Your task to perform on an android device: Show the shopping cart on ebay.com. Image 0: 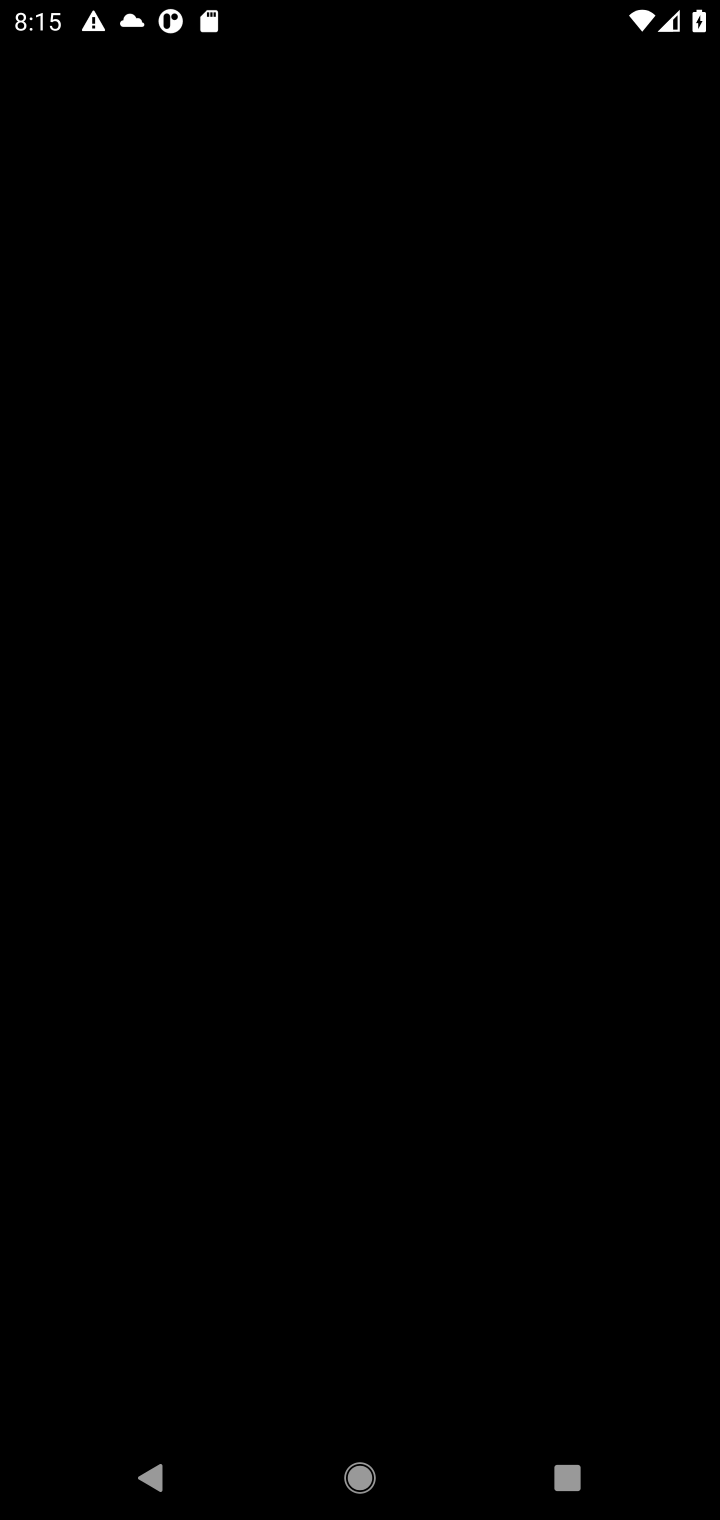
Step 0: press home button
Your task to perform on an android device: Show the shopping cart on ebay.com. Image 1: 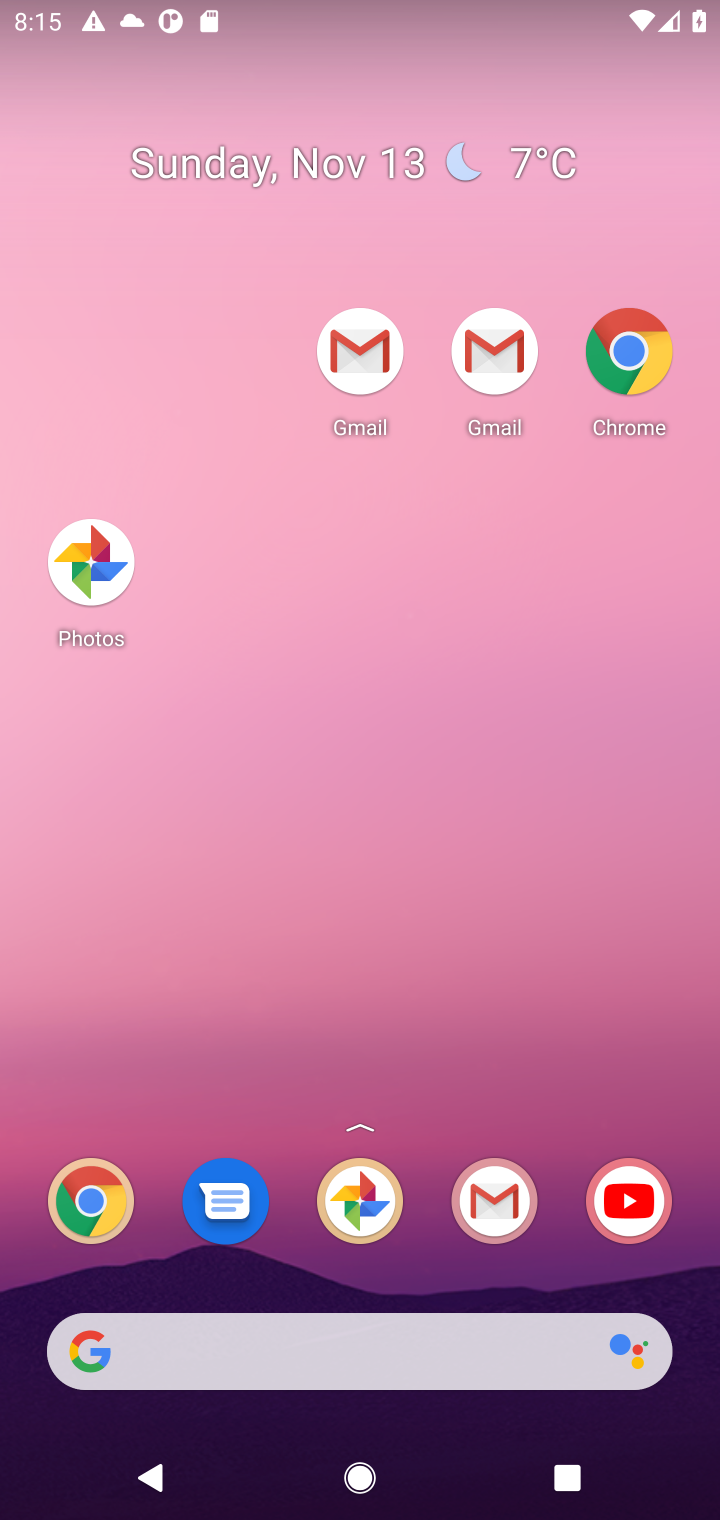
Step 1: drag from (415, 1254) to (664, 687)
Your task to perform on an android device: Show the shopping cart on ebay.com. Image 2: 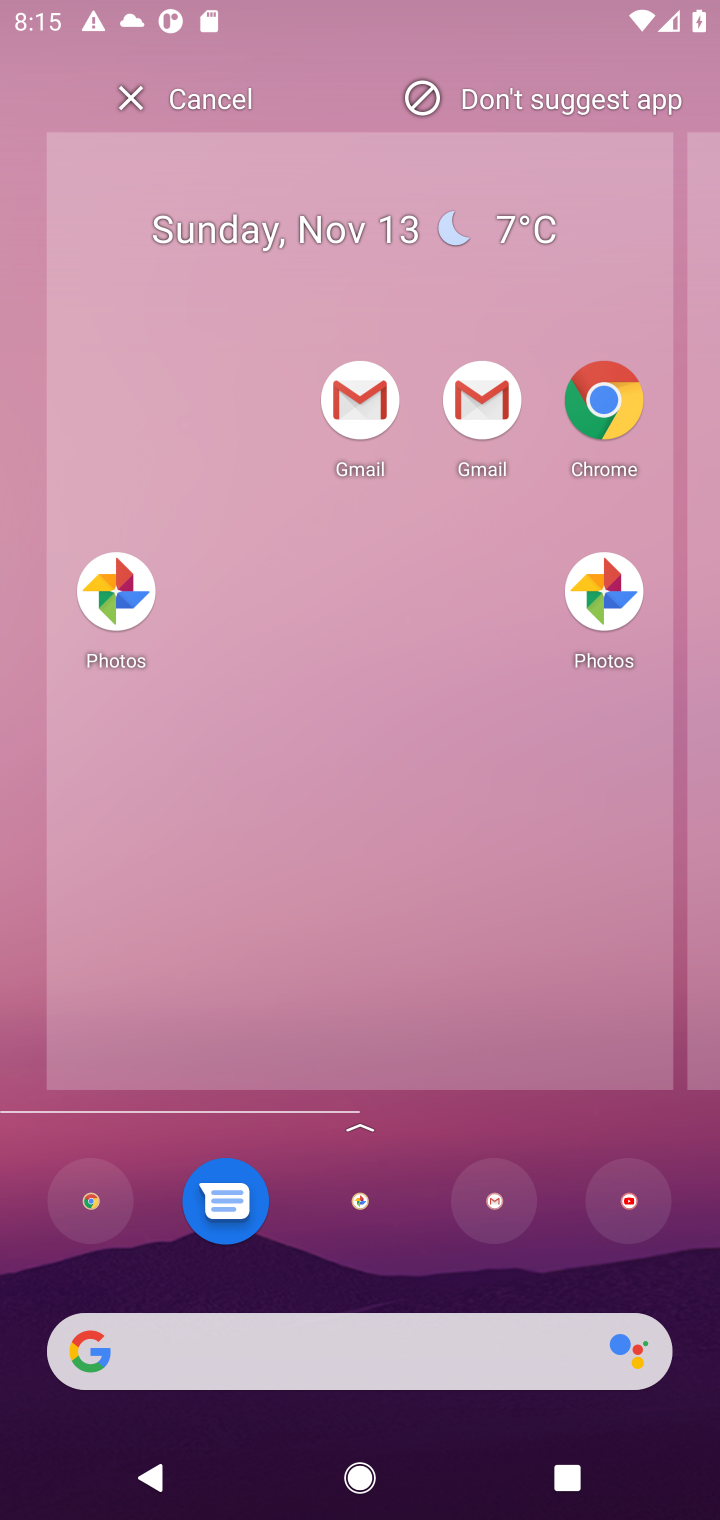
Step 2: click (295, 1297)
Your task to perform on an android device: Show the shopping cart on ebay.com. Image 3: 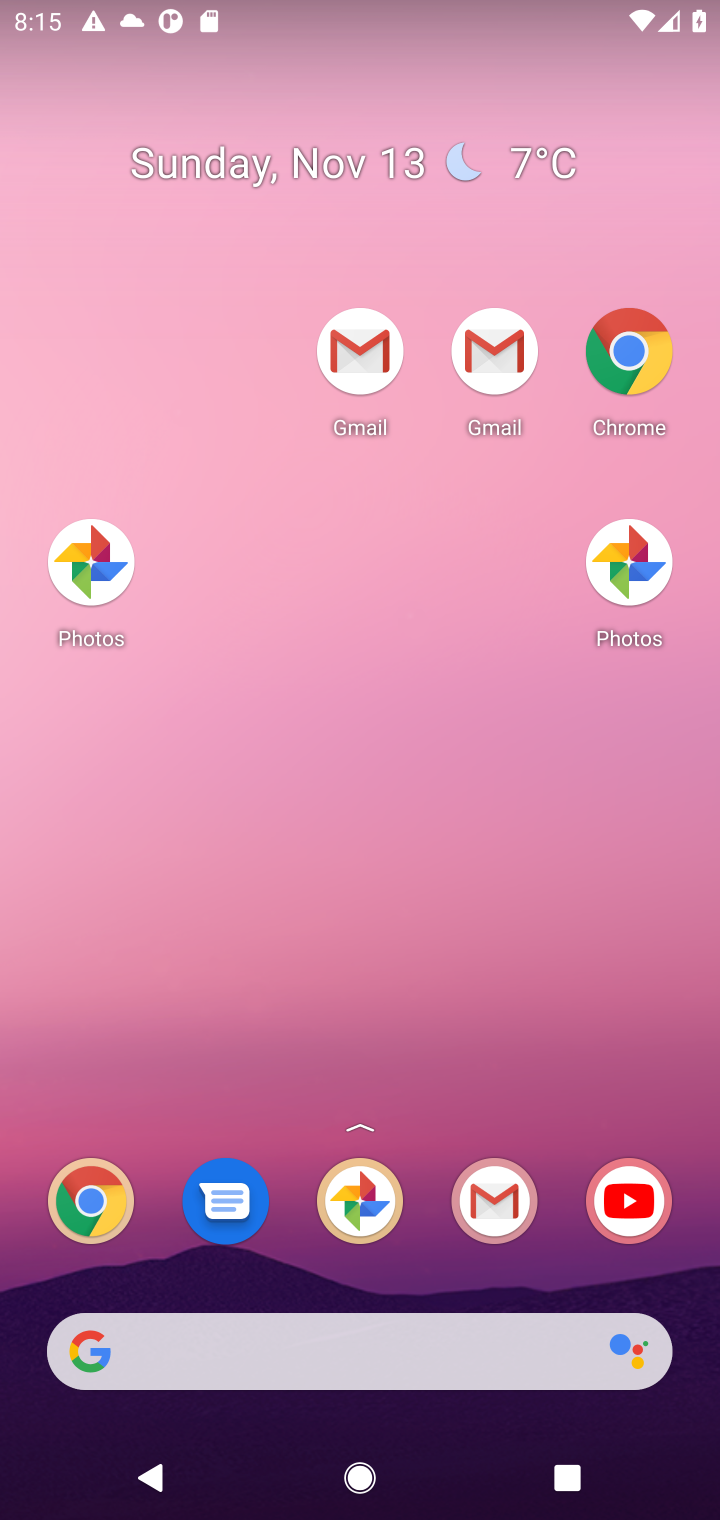
Step 3: drag from (284, 1119) to (252, 48)
Your task to perform on an android device: Show the shopping cart on ebay.com. Image 4: 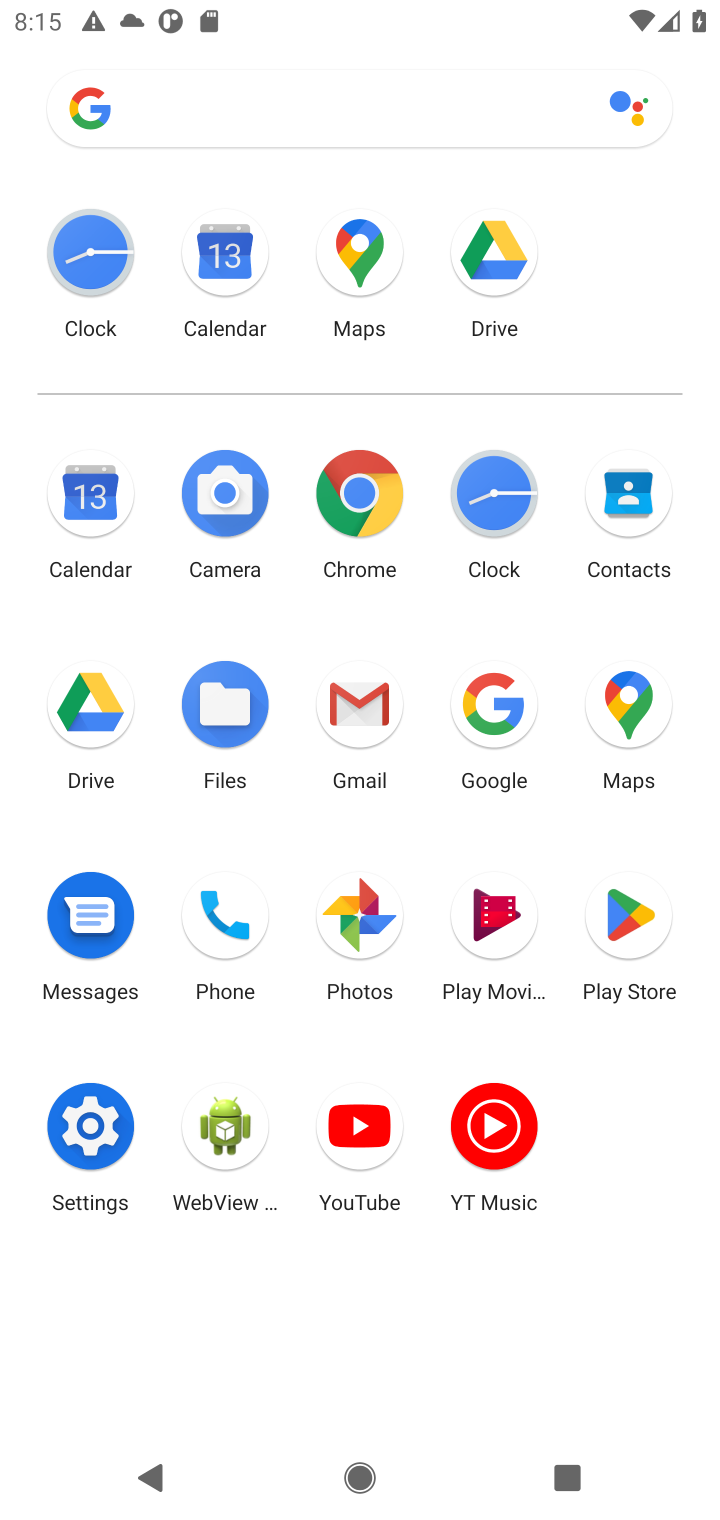
Step 4: click (365, 488)
Your task to perform on an android device: Show the shopping cart on ebay.com. Image 5: 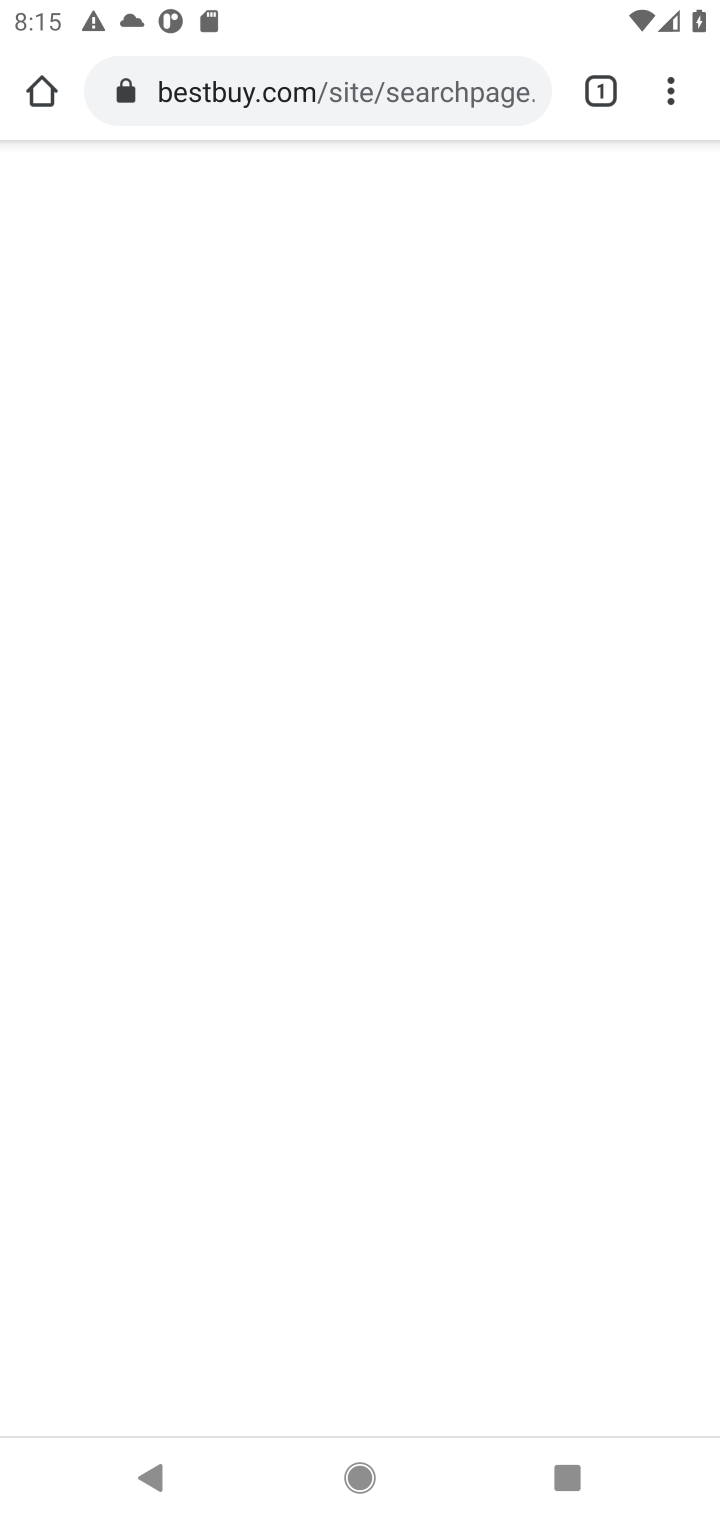
Step 5: click (354, 98)
Your task to perform on an android device: Show the shopping cart on ebay.com. Image 6: 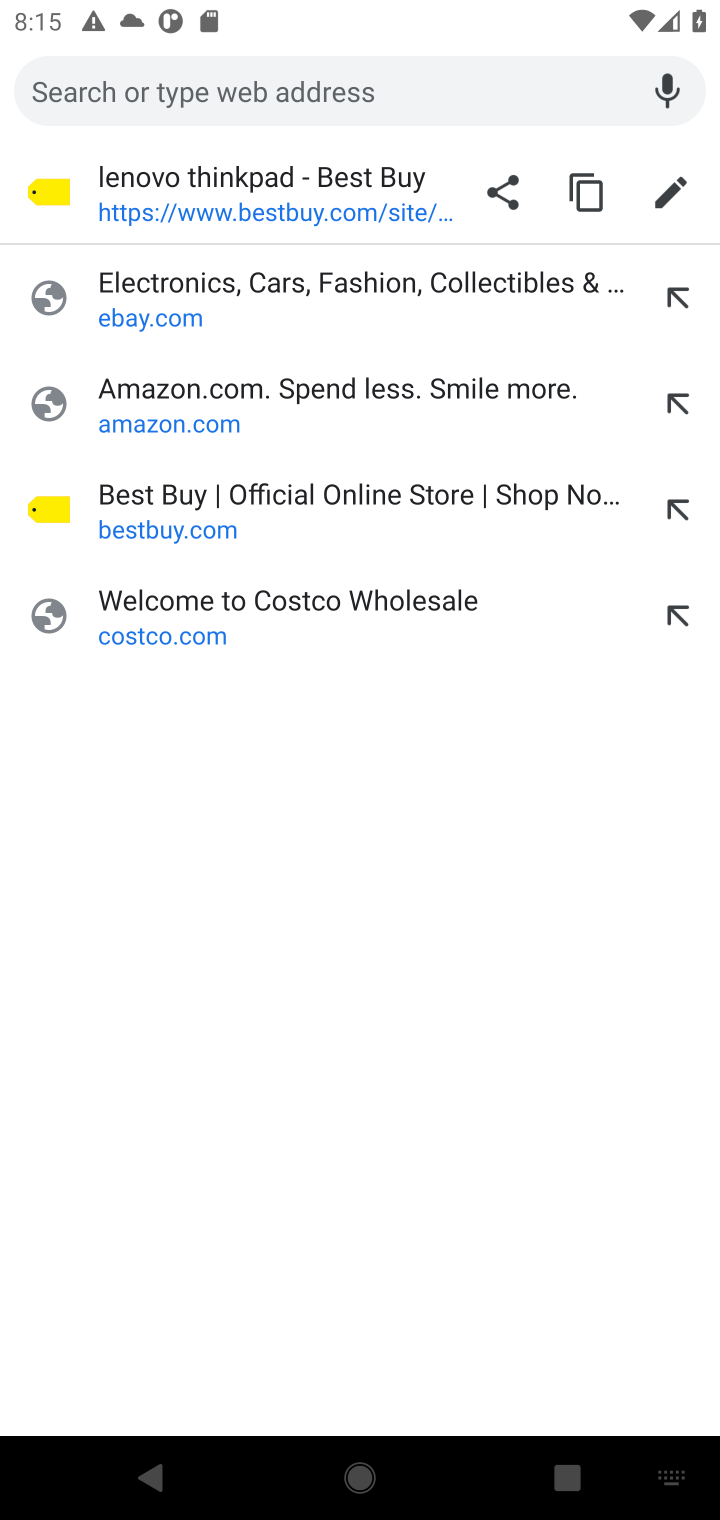
Step 6: type "ebay.com"
Your task to perform on an android device: Show the shopping cart on ebay.com. Image 7: 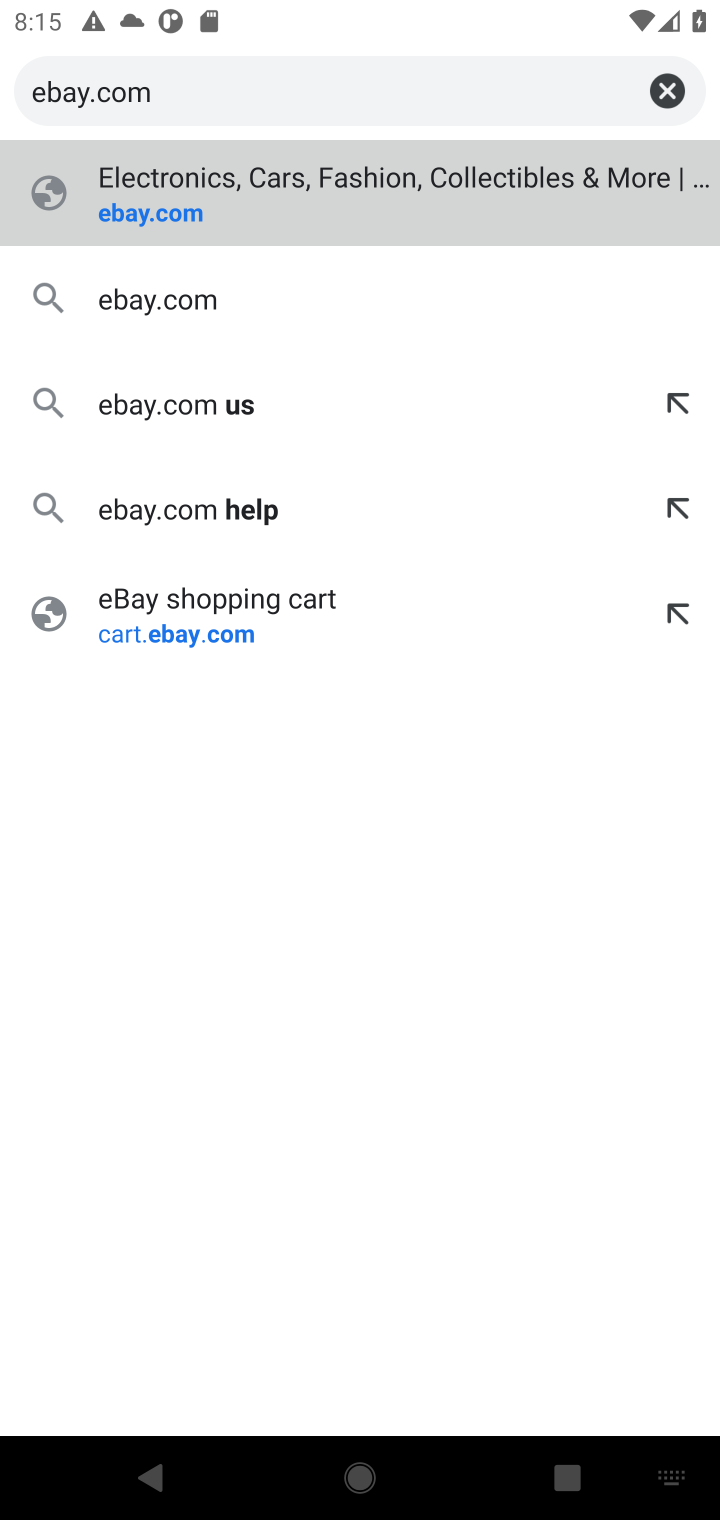
Step 7: press enter
Your task to perform on an android device: Show the shopping cart on ebay.com. Image 8: 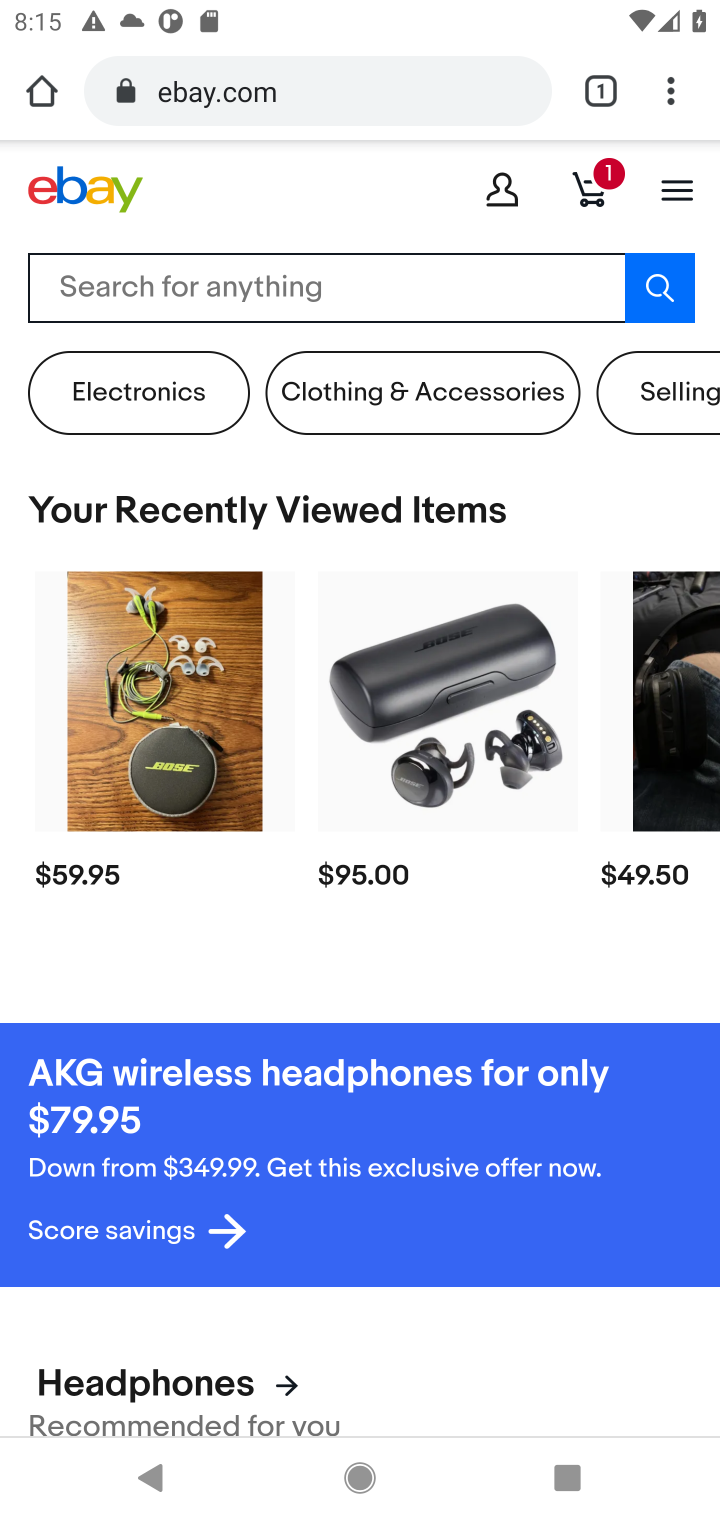
Step 8: click (589, 194)
Your task to perform on an android device: Show the shopping cart on ebay.com. Image 9: 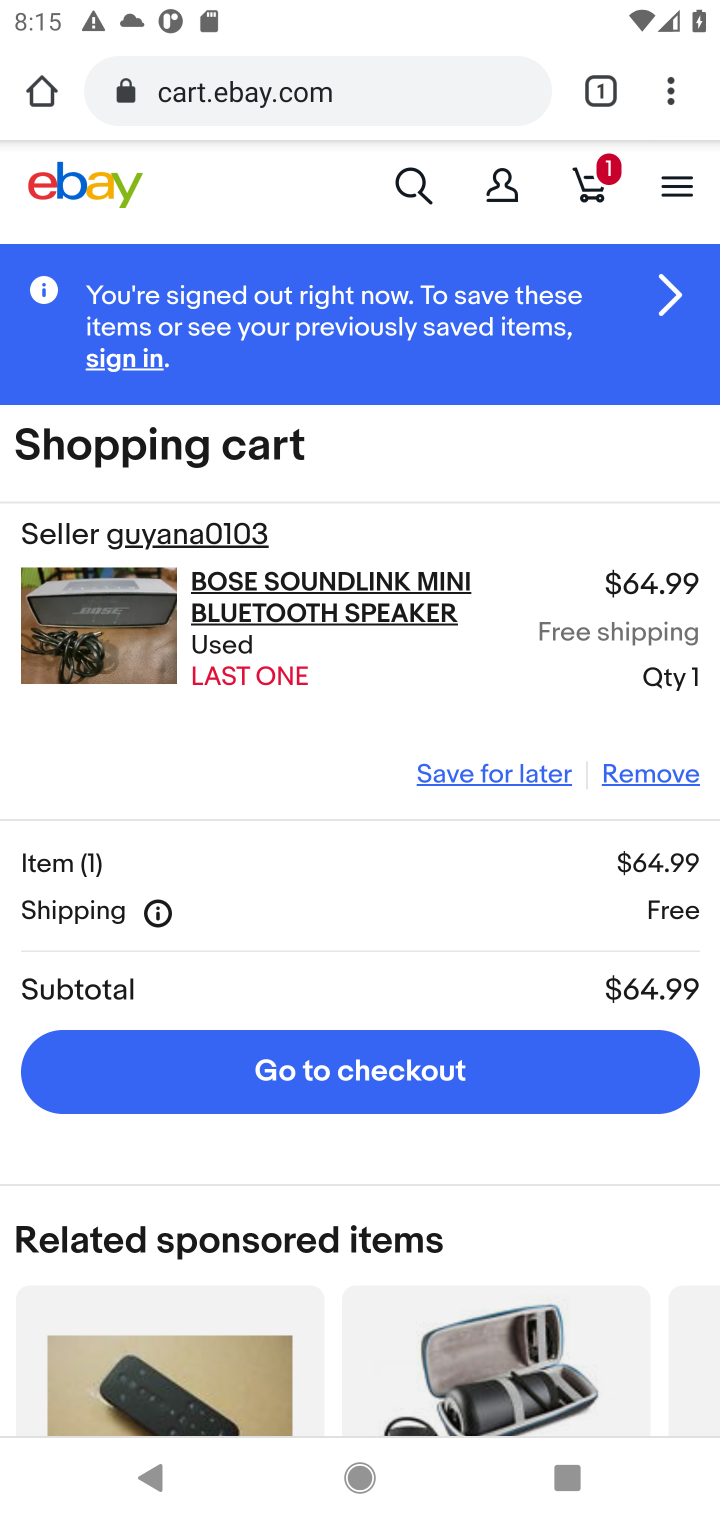
Step 9: task complete